Your task to perform on an android device: set default search engine in the chrome app Image 0: 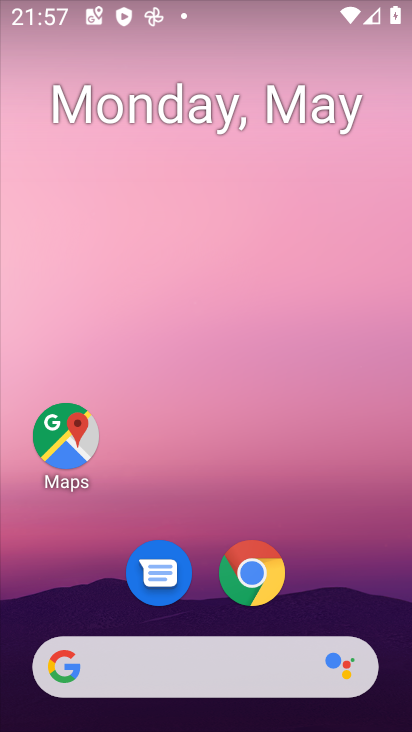
Step 0: click (228, 572)
Your task to perform on an android device: set default search engine in the chrome app Image 1: 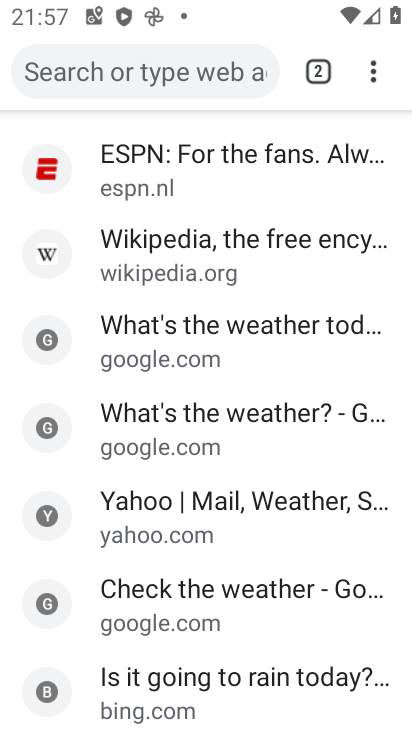
Step 1: click (373, 80)
Your task to perform on an android device: set default search engine in the chrome app Image 2: 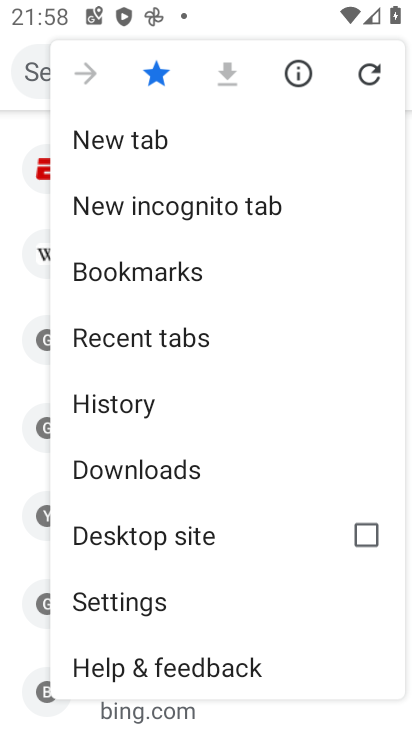
Step 2: task complete